Your task to perform on an android device: turn on the 24-hour format for clock Image 0: 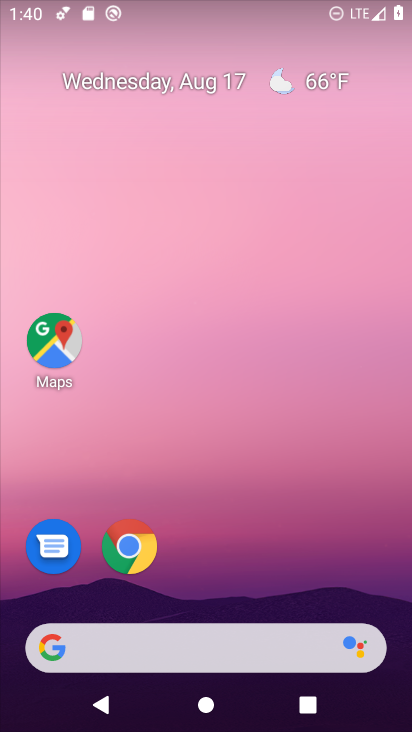
Step 0: drag from (244, 581) to (203, 306)
Your task to perform on an android device: turn on the 24-hour format for clock Image 1: 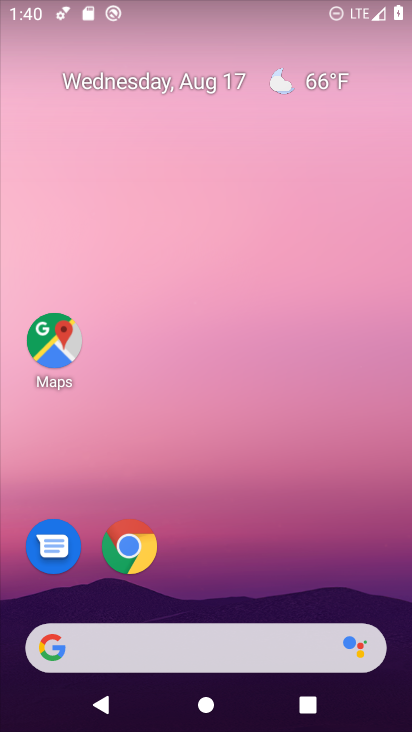
Step 1: drag from (230, 574) to (242, 148)
Your task to perform on an android device: turn on the 24-hour format for clock Image 2: 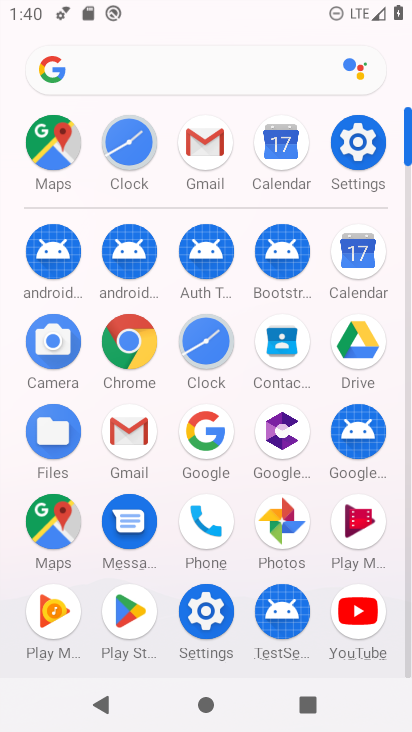
Step 2: click (210, 342)
Your task to perform on an android device: turn on the 24-hour format for clock Image 3: 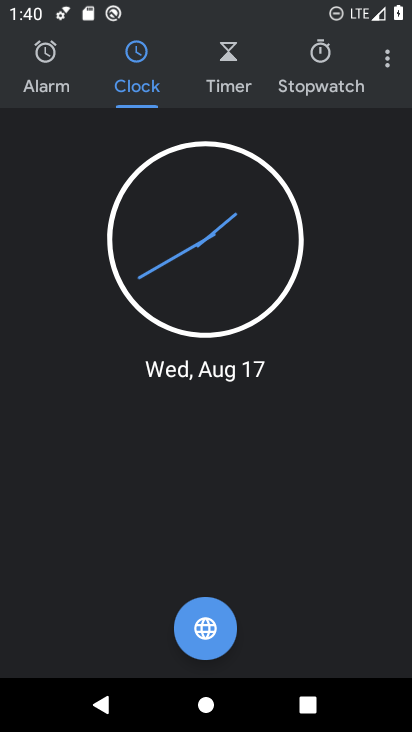
Step 3: click (389, 59)
Your task to perform on an android device: turn on the 24-hour format for clock Image 4: 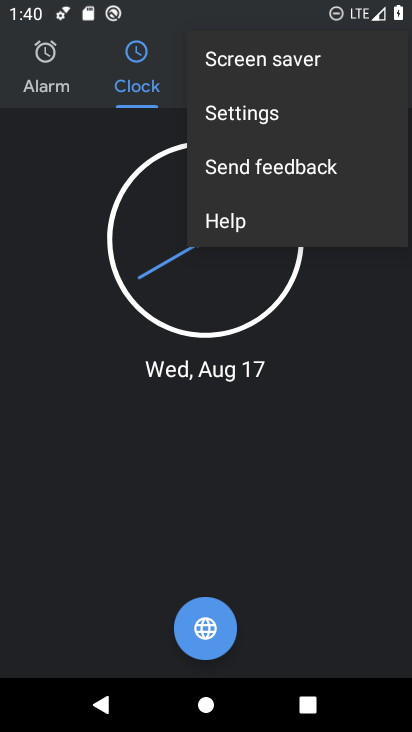
Step 4: click (243, 111)
Your task to perform on an android device: turn on the 24-hour format for clock Image 5: 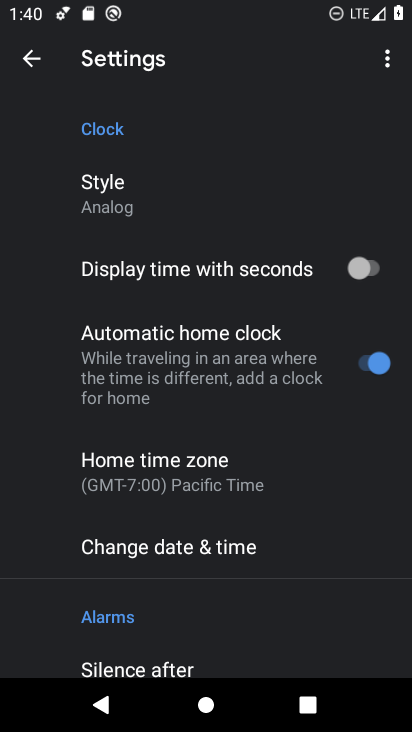
Step 5: click (226, 547)
Your task to perform on an android device: turn on the 24-hour format for clock Image 6: 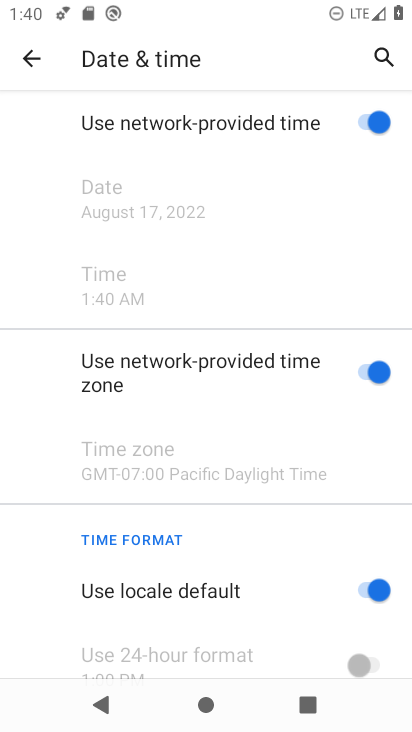
Step 6: drag from (274, 615) to (240, 426)
Your task to perform on an android device: turn on the 24-hour format for clock Image 7: 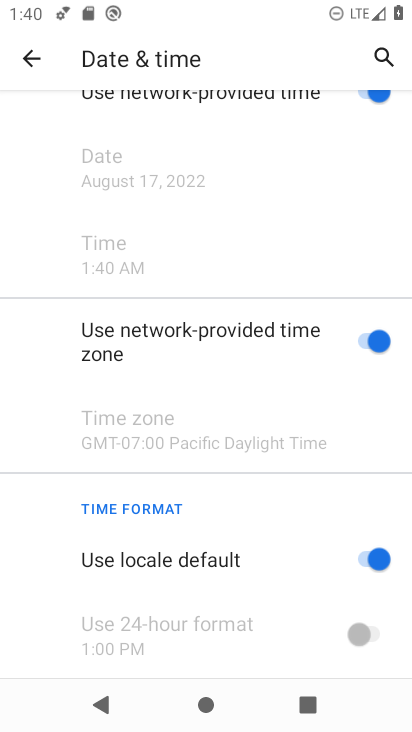
Step 7: click (368, 563)
Your task to perform on an android device: turn on the 24-hour format for clock Image 8: 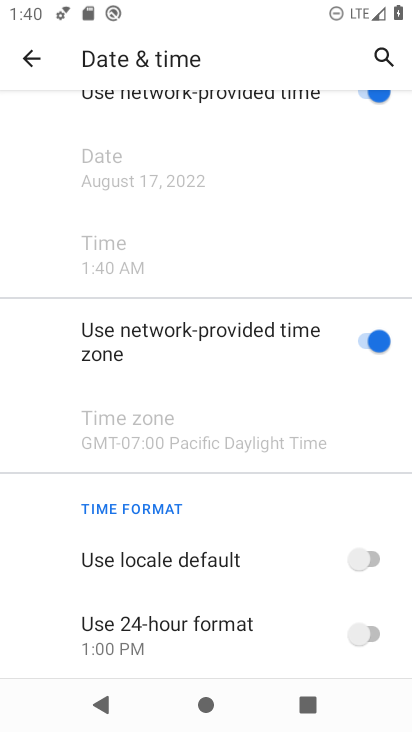
Step 8: click (357, 642)
Your task to perform on an android device: turn on the 24-hour format for clock Image 9: 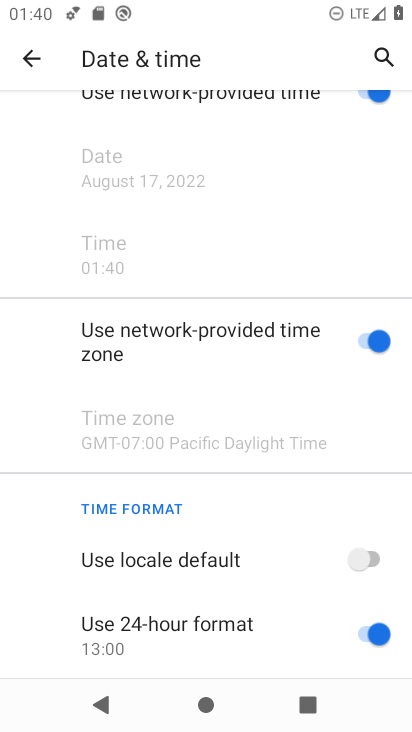
Step 9: task complete